Your task to perform on an android device: Play the last video I watched on Youtube Image 0: 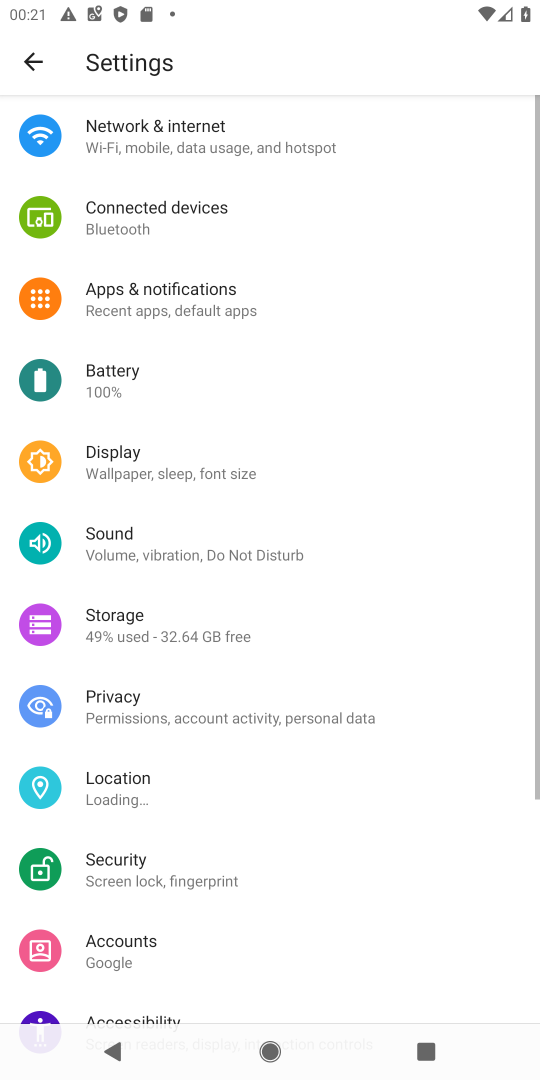
Step 0: press home button
Your task to perform on an android device: Play the last video I watched on Youtube Image 1: 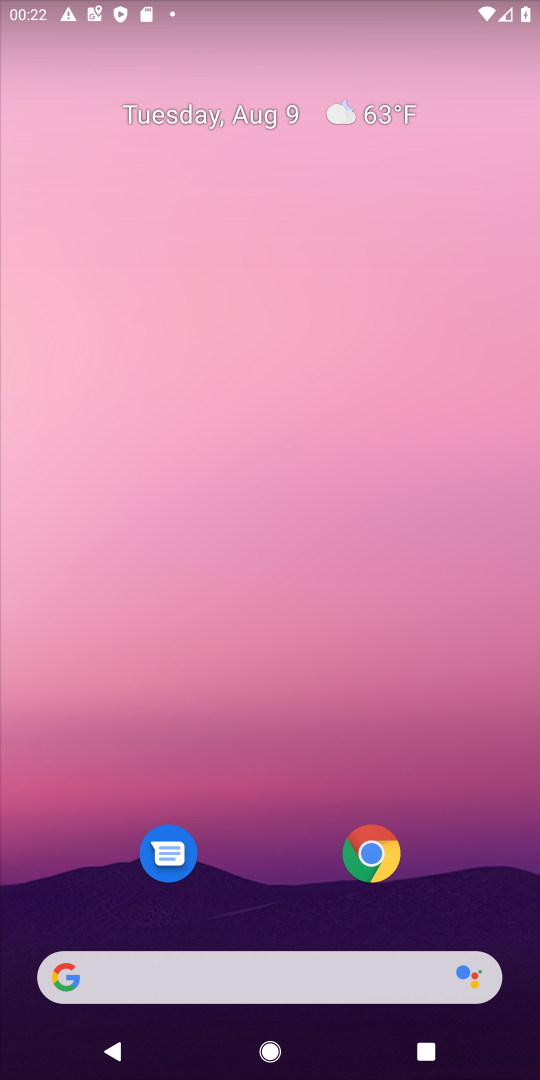
Step 1: drag from (236, 834) to (236, 169)
Your task to perform on an android device: Play the last video I watched on Youtube Image 2: 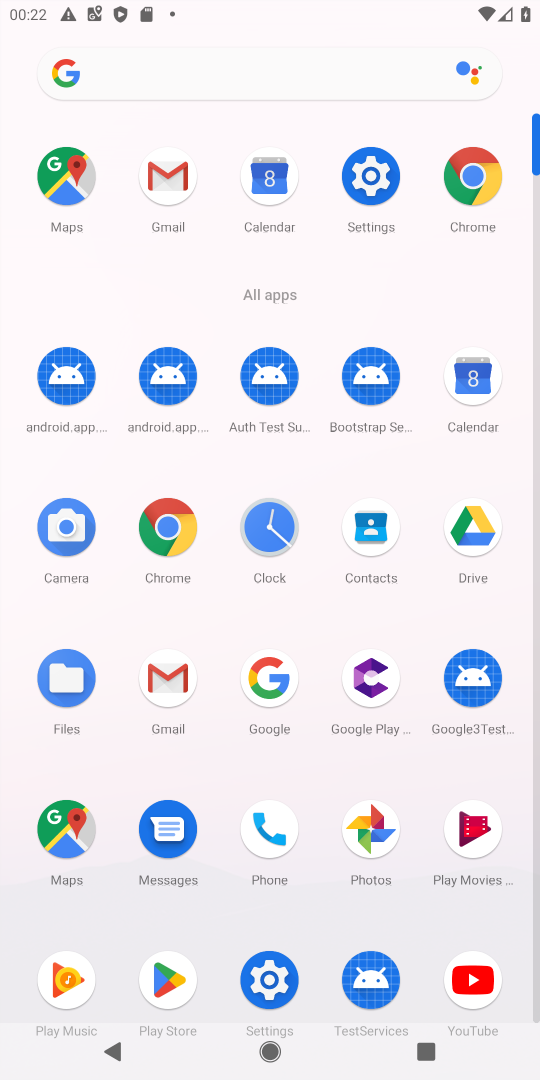
Step 2: click (471, 978)
Your task to perform on an android device: Play the last video I watched on Youtube Image 3: 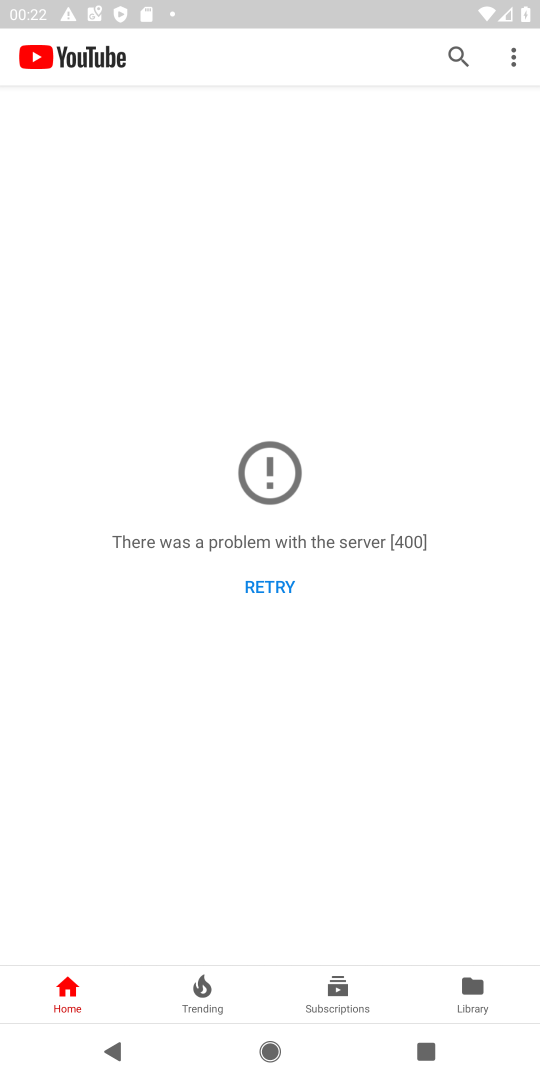
Step 3: click (469, 1006)
Your task to perform on an android device: Play the last video I watched on Youtube Image 4: 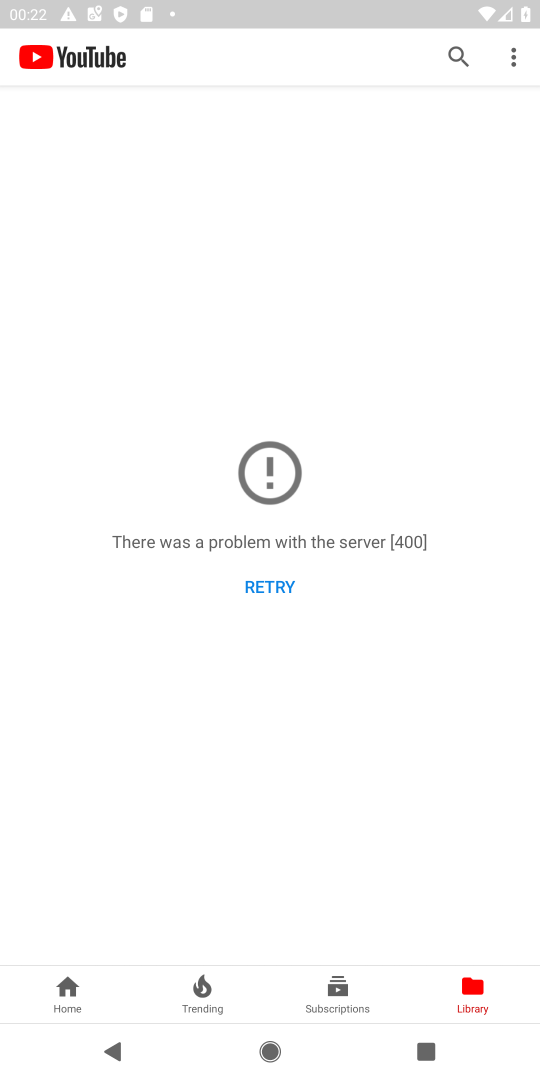
Step 4: click (268, 589)
Your task to perform on an android device: Play the last video I watched on Youtube Image 5: 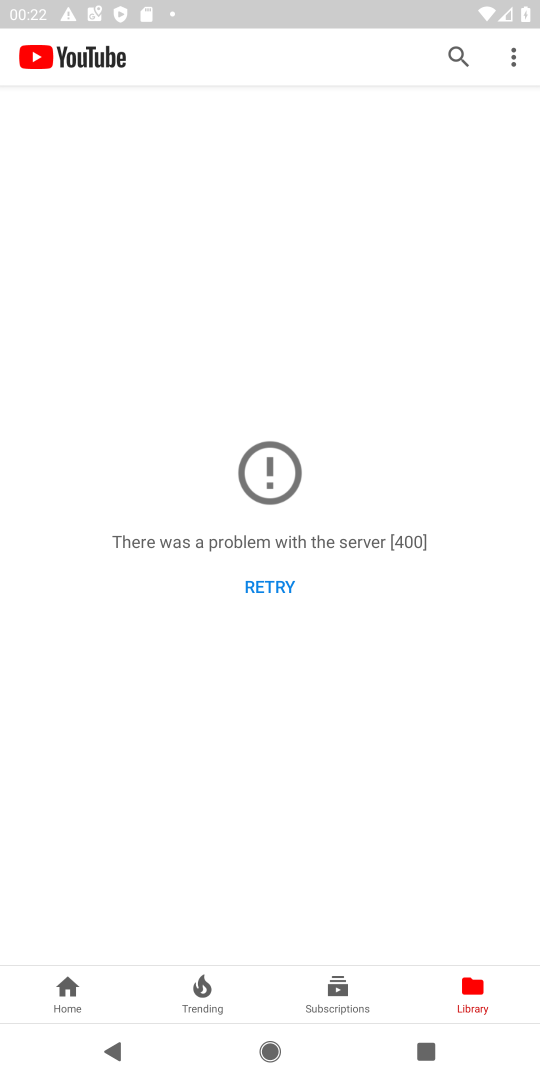
Step 5: task complete